Your task to perform on an android device: Set the phone to "Do not disturb". Image 0: 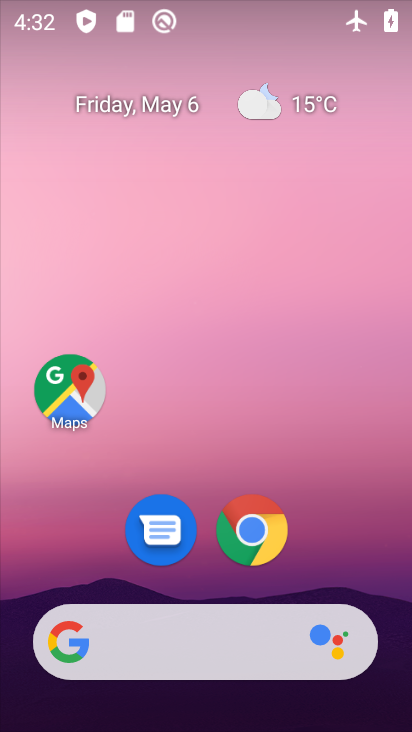
Step 0: drag from (360, 536) to (315, 79)
Your task to perform on an android device: Set the phone to "Do not disturb". Image 1: 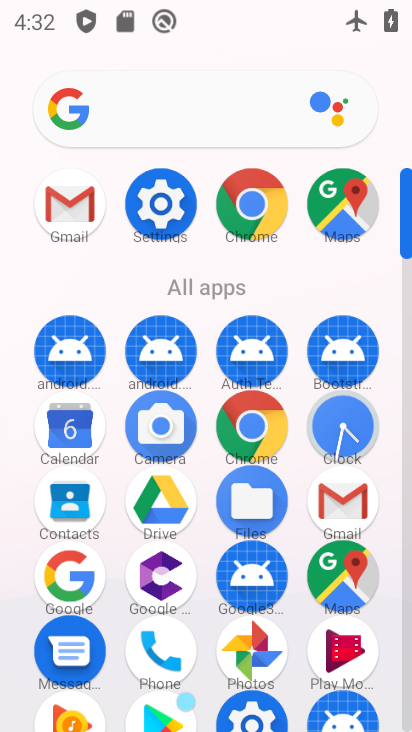
Step 1: click (168, 211)
Your task to perform on an android device: Set the phone to "Do not disturb". Image 2: 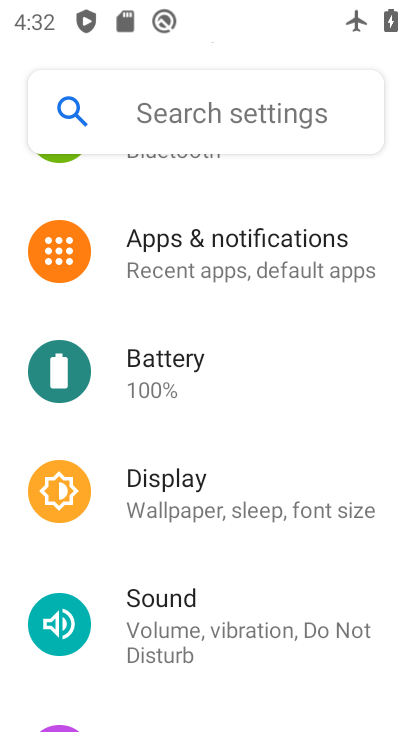
Step 2: click (201, 633)
Your task to perform on an android device: Set the phone to "Do not disturb". Image 3: 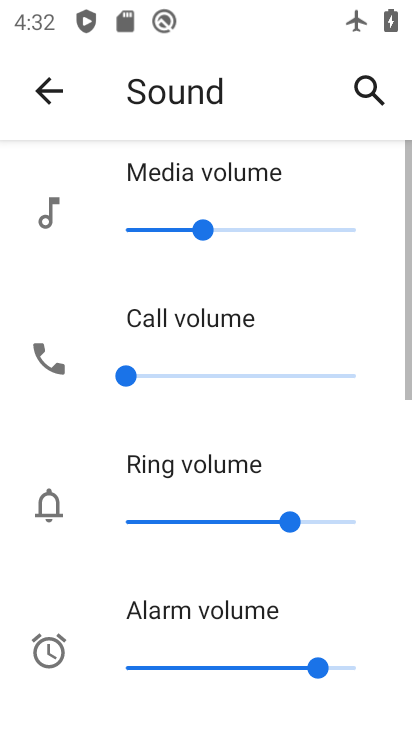
Step 3: drag from (232, 653) to (271, 209)
Your task to perform on an android device: Set the phone to "Do not disturb". Image 4: 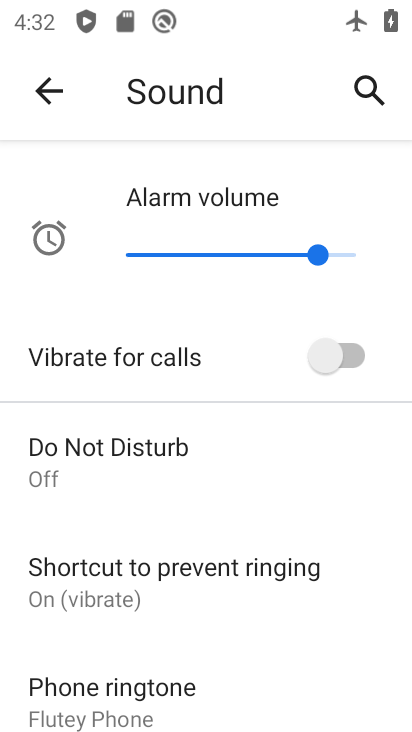
Step 4: click (87, 479)
Your task to perform on an android device: Set the phone to "Do not disturb". Image 5: 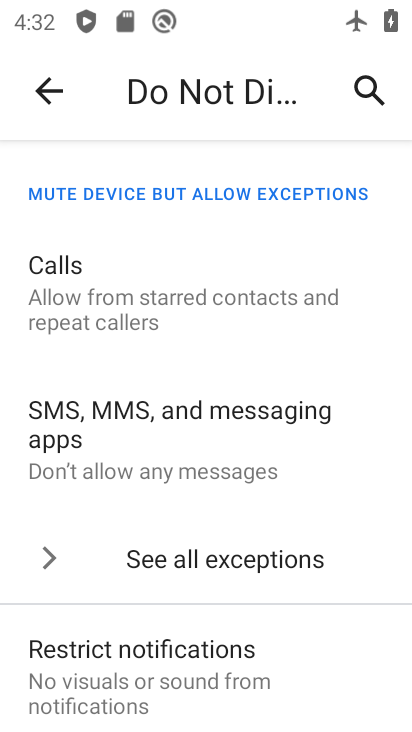
Step 5: drag from (183, 667) to (164, 208)
Your task to perform on an android device: Set the phone to "Do not disturb". Image 6: 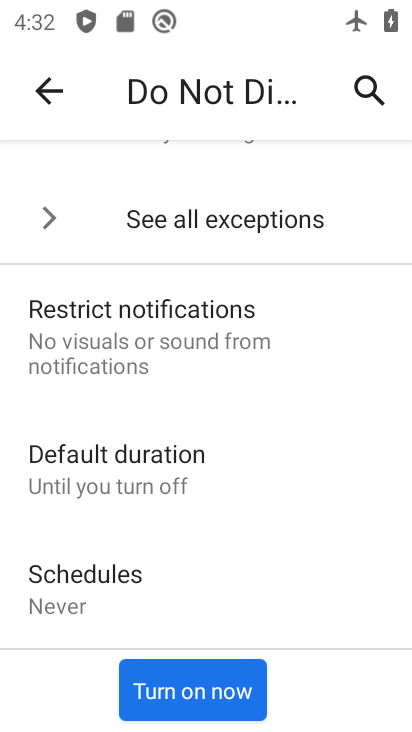
Step 6: click (203, 707)
Your task to perform on an android device: Set the phone to "Do not disturb". Image 7: 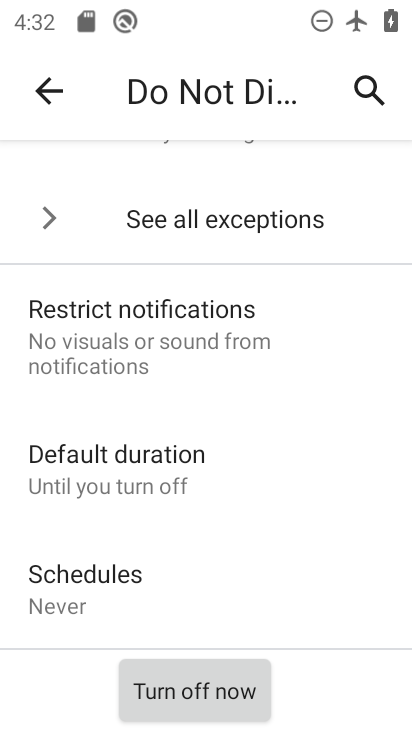
Step 7: task complete